Your task to perform on an android device: see creations saved in the google photos Image 0: 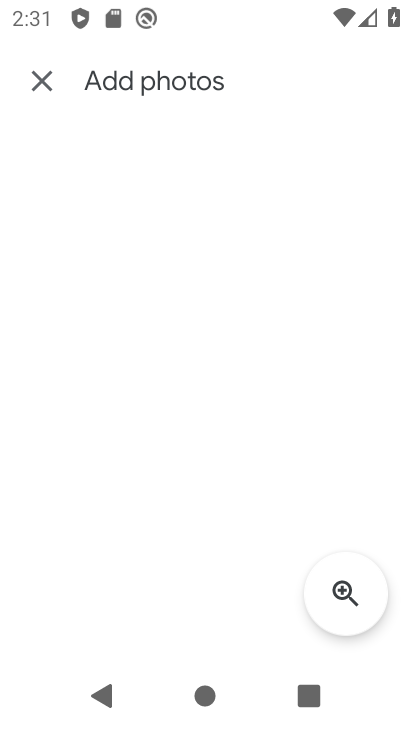
Step 0: press back button
Your task to perform on an android device: see creations saved in the google photos Image 1: 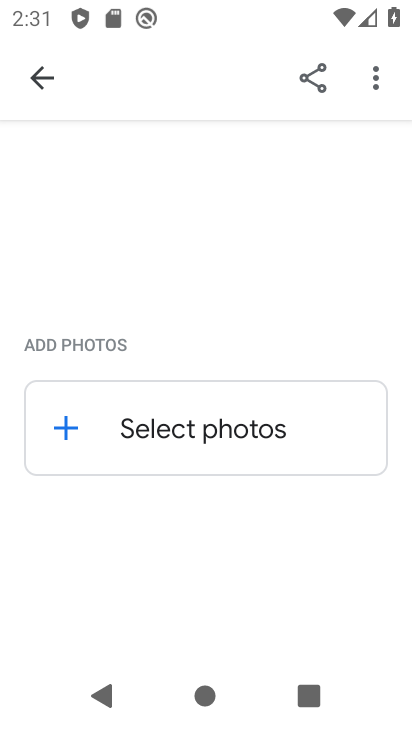
Step 1: click (34, 66)
Your task to perform on an android device: see creations saved in the google photos Image 2: 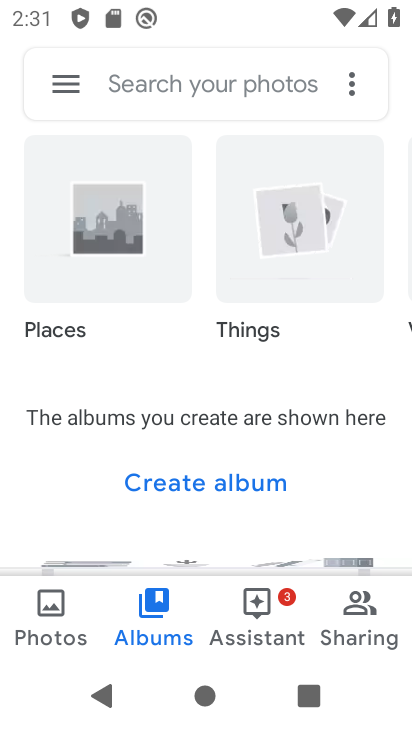
Step 2: click (54, 76)
Your task to perform on an android device: see creations saved in the google photos Image 3: 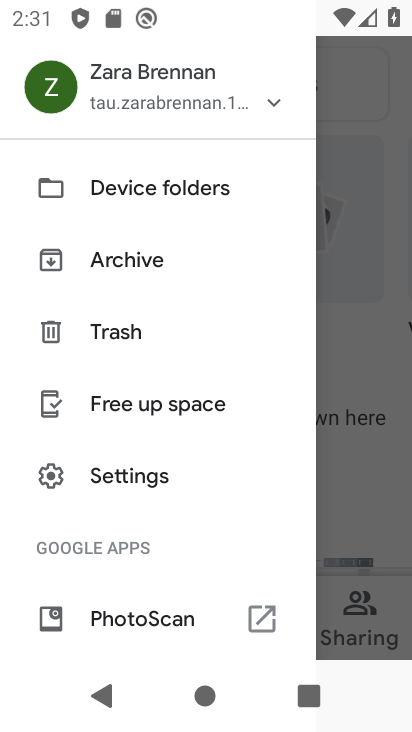
Step 3: click (112, 257)
Your task to perform on an android device: see creations saved in the google photos Image 4: 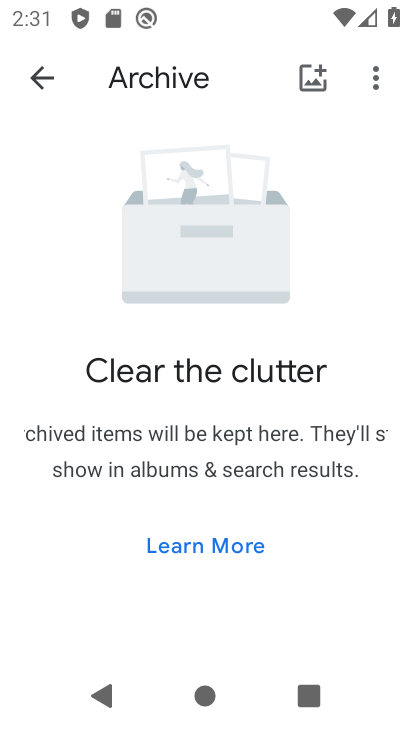
Step 4: task complete